Your task to perform on an android device: toggle pop-ups in chrome Image 0: 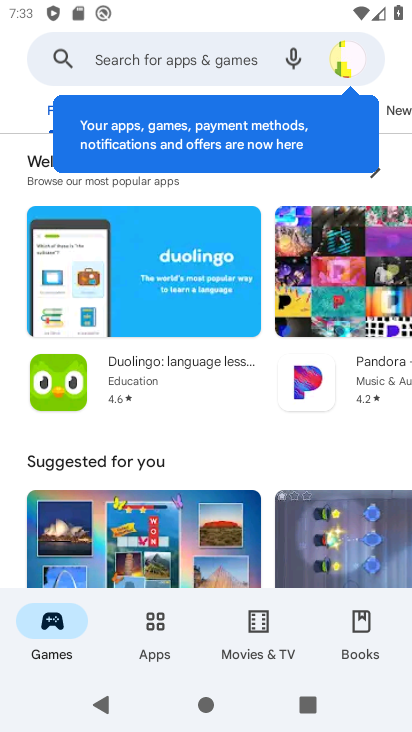
Step 0: press home button
Your task to perform on an android device: toggle pop-ups in chrome Image 1: 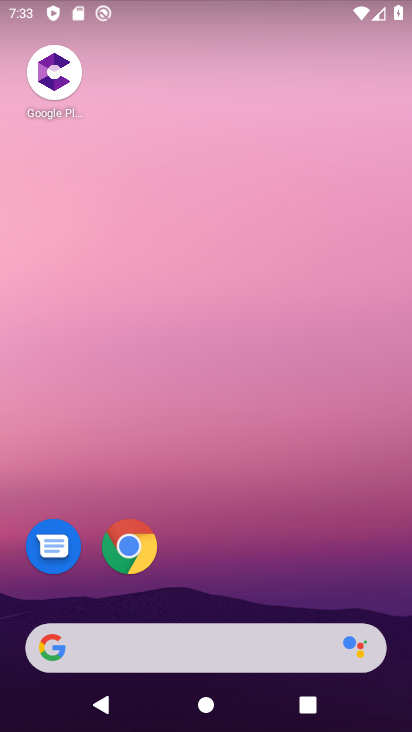
Step 1: click (153, 541)
Your task to perform on an android device: toggle pop-ups in chrome Image 2: 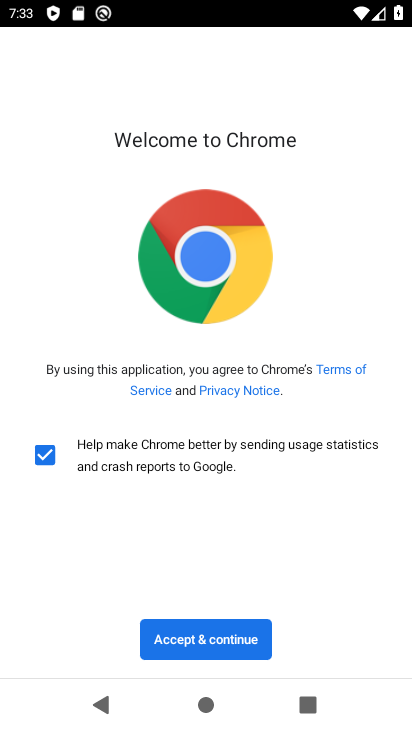
Step 2: click (241, 649)
Your task to perform on an android device: toggle pop-ups in chrome Image 3: 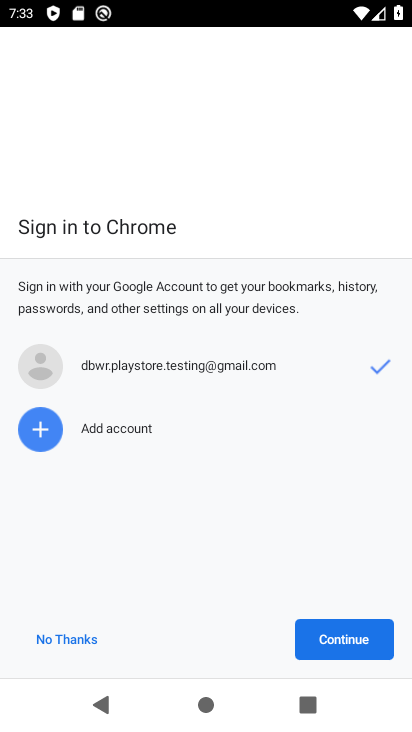
Step 3: click (367, 636)
Your task to perform on an android device: toggle pop-ups in chrome Image 4: 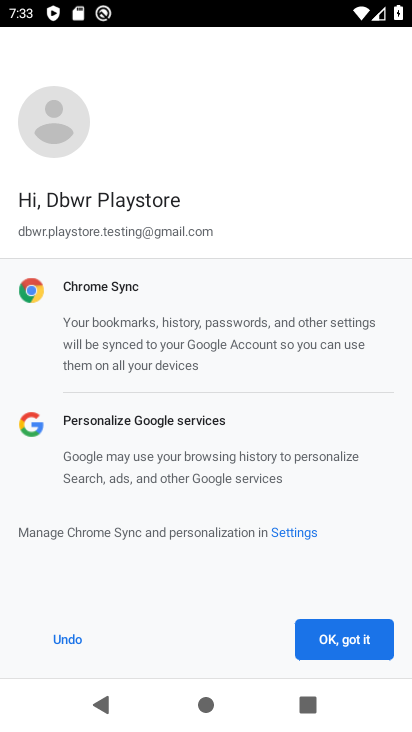
Step 4: click (367, 636)
Your task to perform on an android device: toggle pop-ups in chrome Image 5: 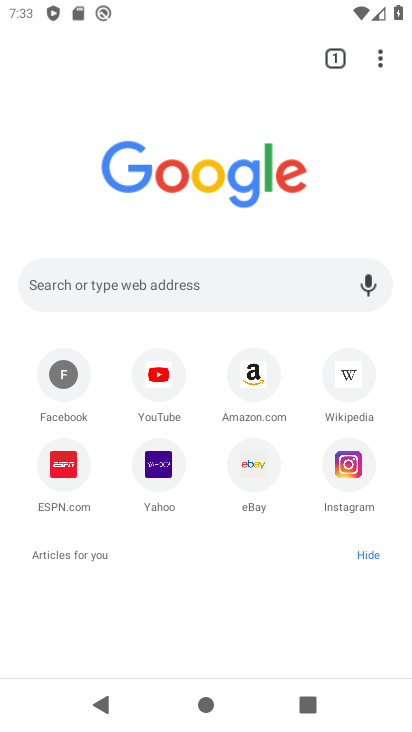
Step 5: click (379, 50)
Your task to perform on an android device: toggle pop-ups in chrome Image 6: 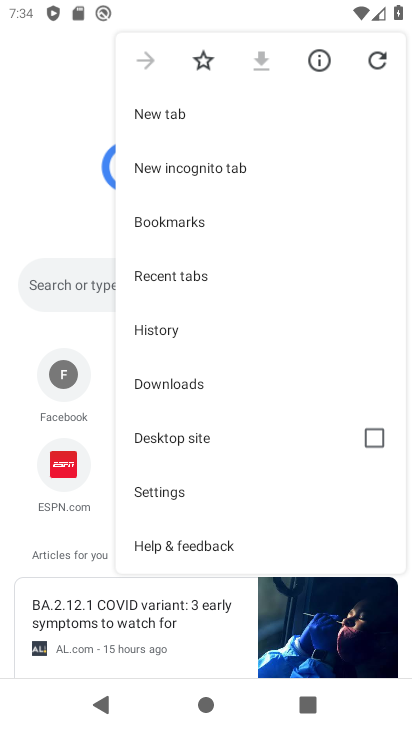
Step 6: click (211, 500)
Your task to perform on an android device: toggle pop-ups in chrome Image 7: 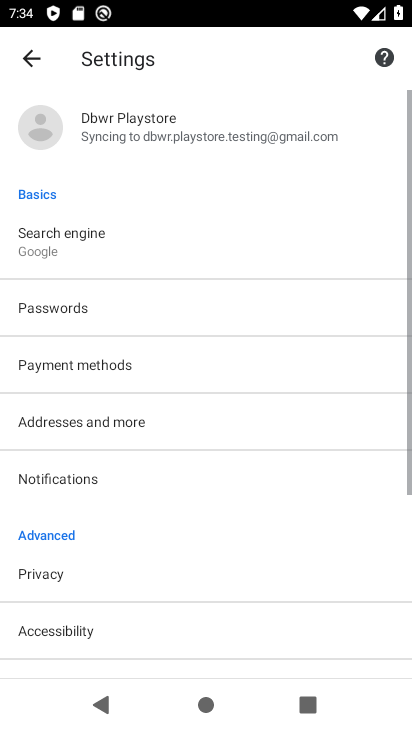
Step 7: drag from (211, 599) to (192, 390)
Your task to perform on an android device: toggle pop-ups in chrome Image 8: 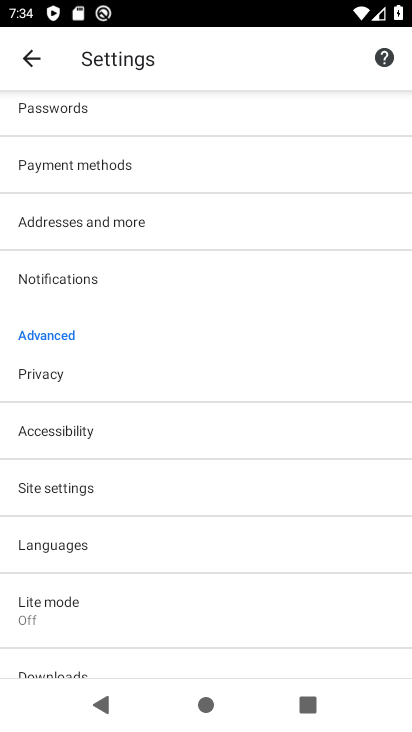
Step 8: click (142, 486)
Your task to perform on an android device: toggle pop-ups in chrome Image 9: 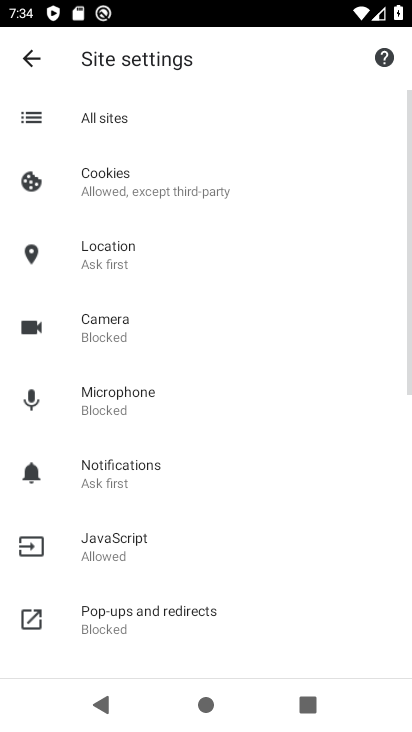
Step 9: click (200, 611)
Your task to perform on an android device: toggle pop-ups in chrome Image 10: 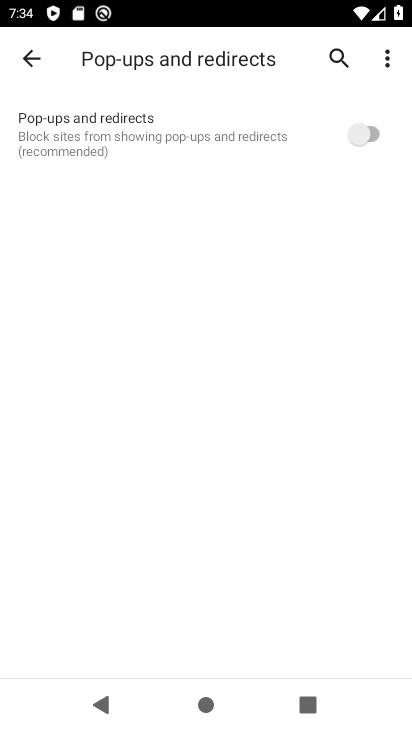
Step 10: click (378, 145)
Your task to perform on an android device: toggle pop-ups in chrome Image 11: 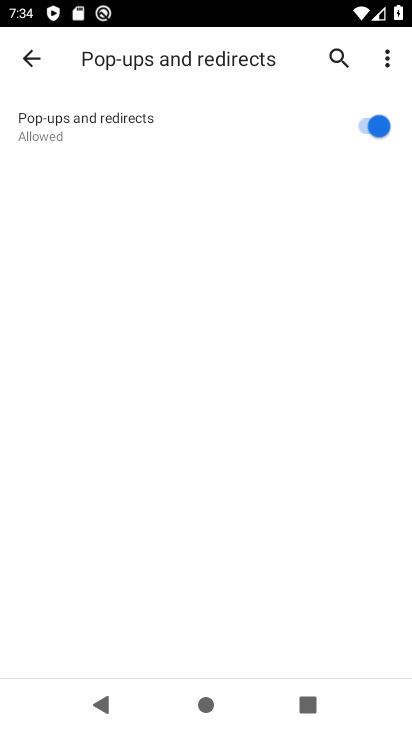
Step 11: task complete